Your task to perform on an android device: Add asus zenbook to the cart on newegg.com Image 0: 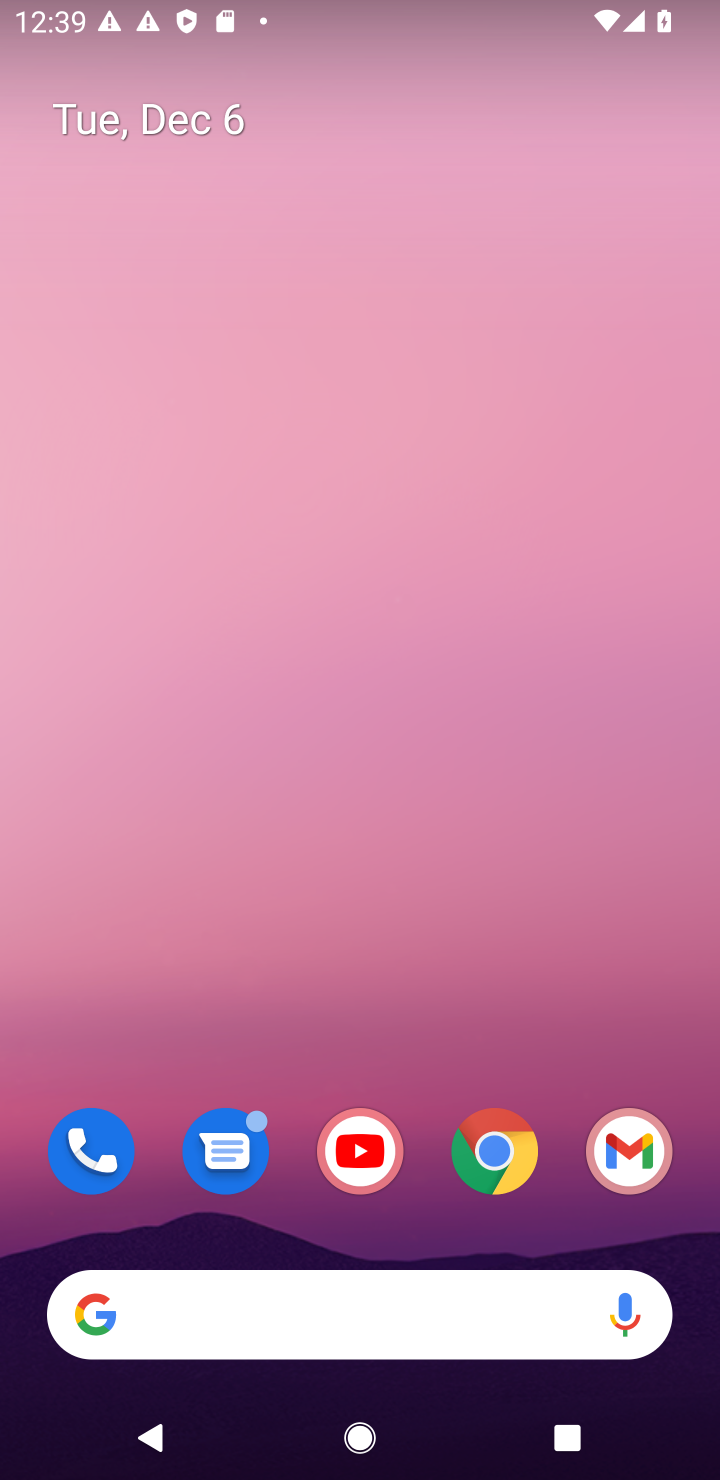
Step 0: click (511, 1165)
Your task to perform on an android device: Add asus zenbook to the cart on newegg.com Image 1: 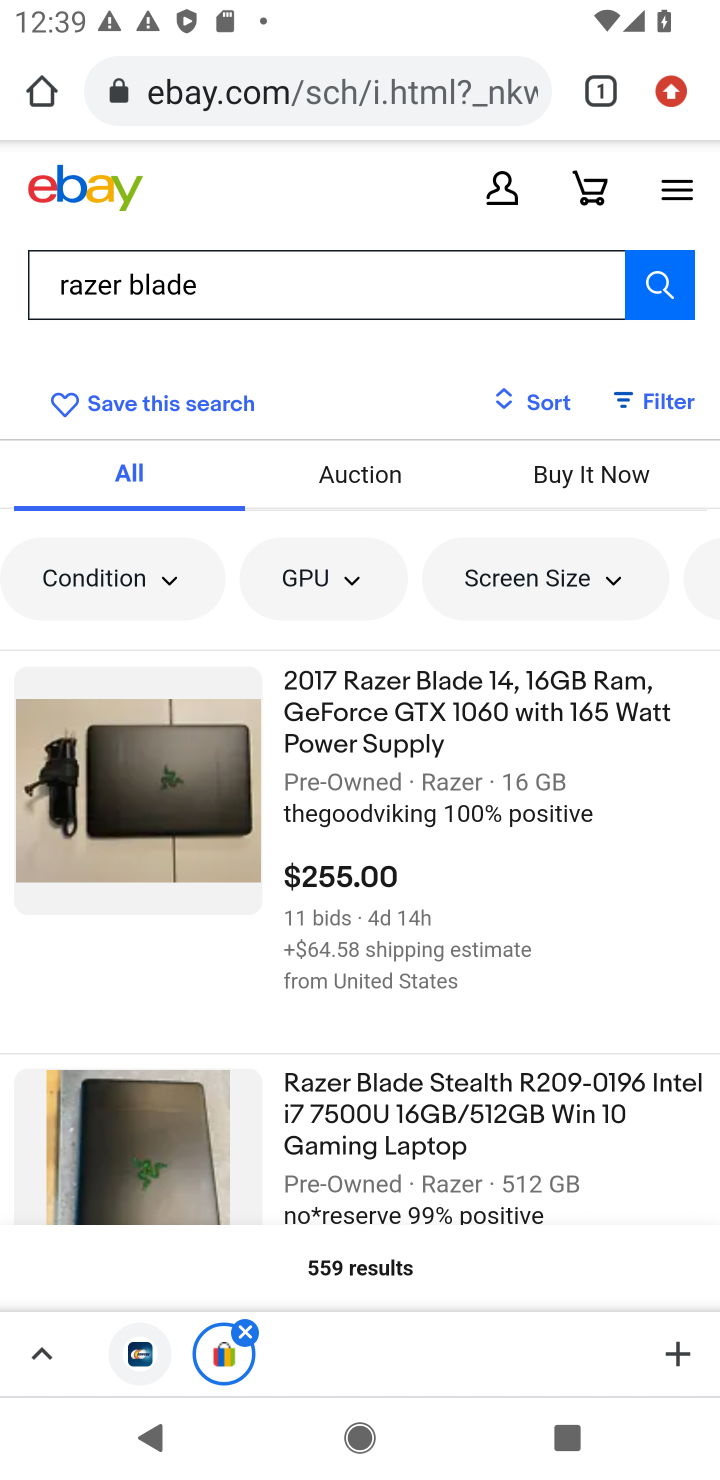
Step 1: click (293, 96)
Your task to perform on an android device: Add asus zenbook to the cart on newegg.com Image 2: 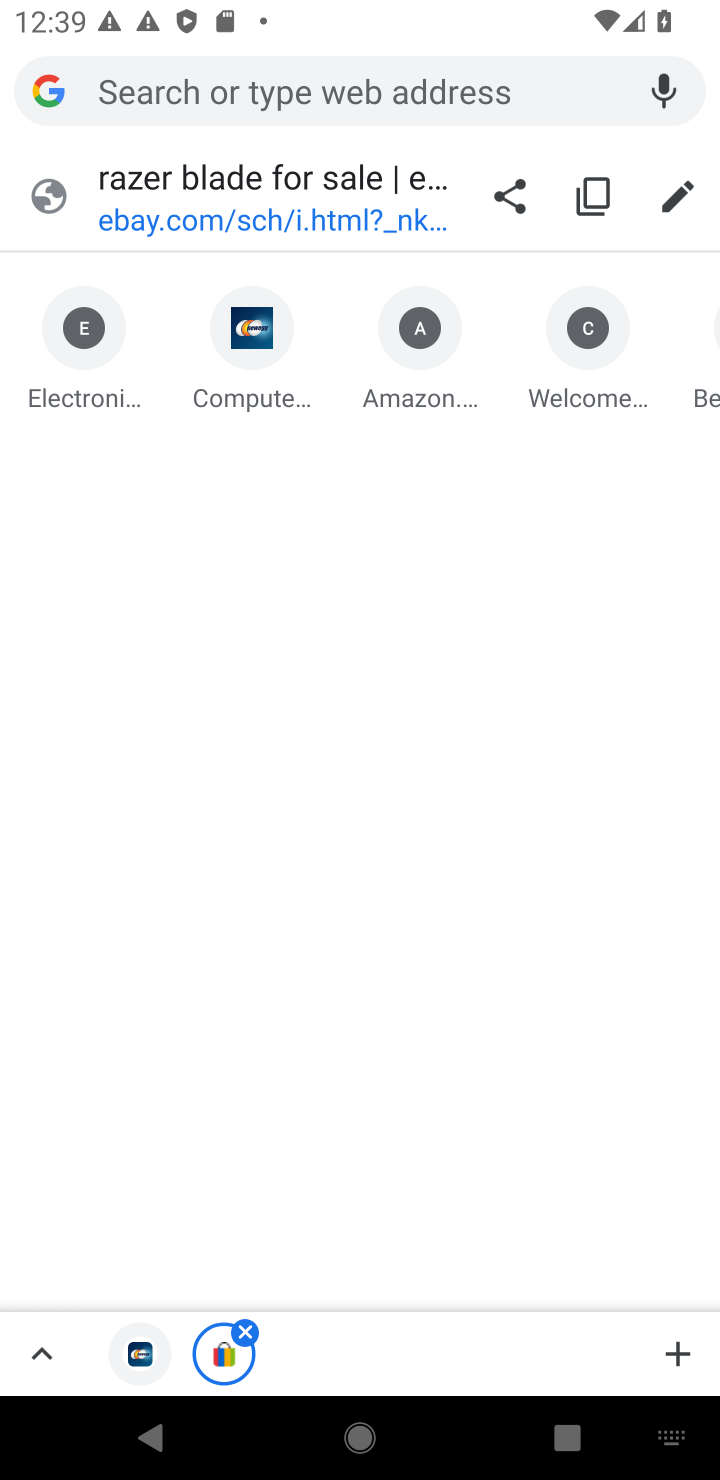
Step 2: click (244, 379)
Your task to perform on an android device: Add asus zenbook to the cart on newegg.com Image 3: 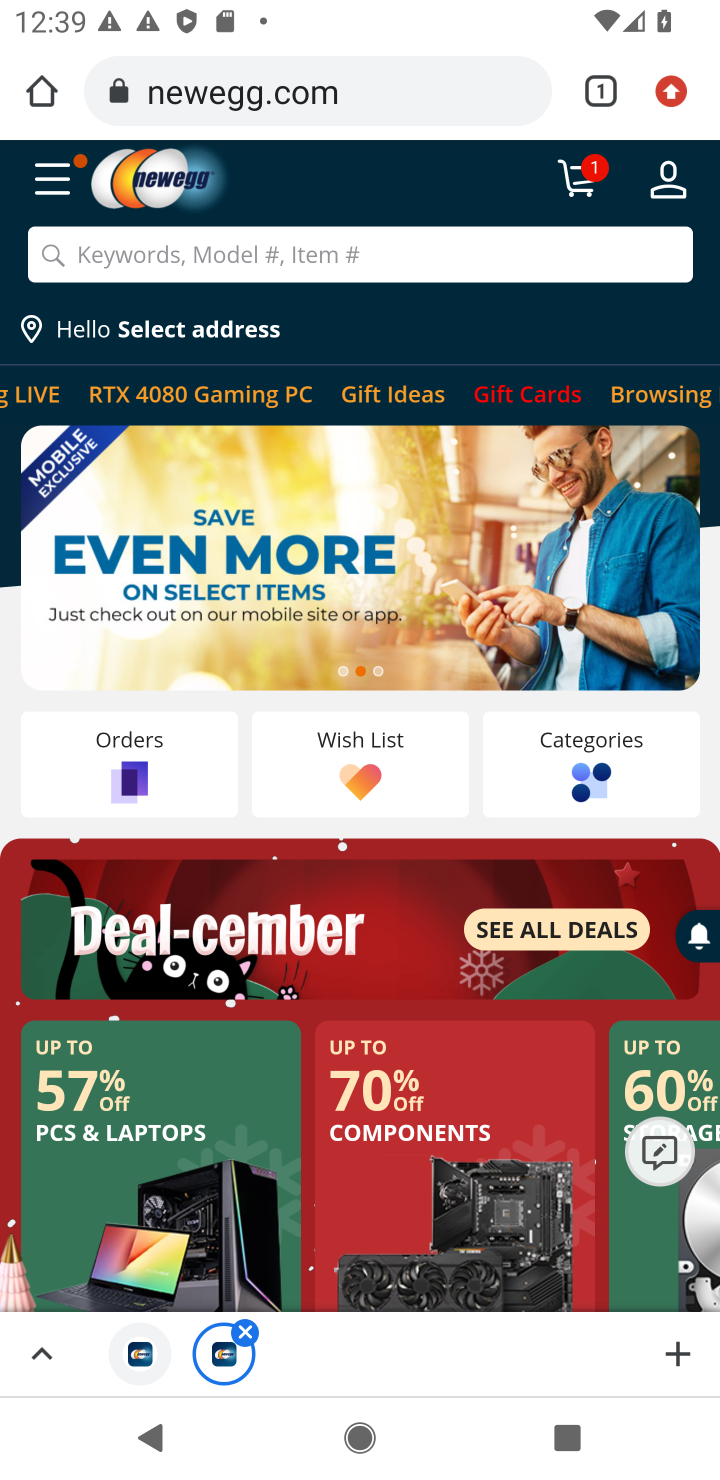
Step 3: click (155, 255)
Your task to perform on an android device: Add asus zenbook to the cart on newegg.com Image 4: 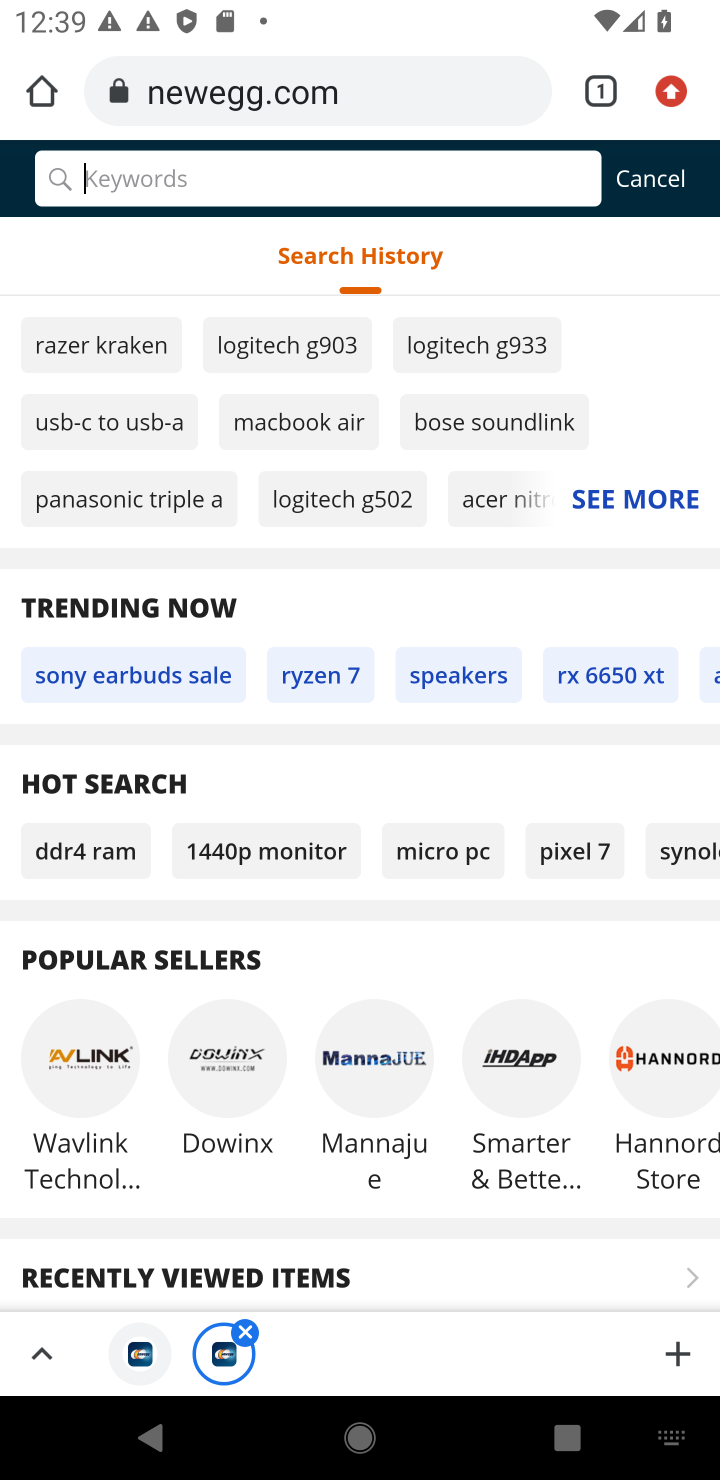
Step 4: type "asus zenbook"
Your task to perform on an android device: Add asus zenbook to the cart on newegg.com Image 5: 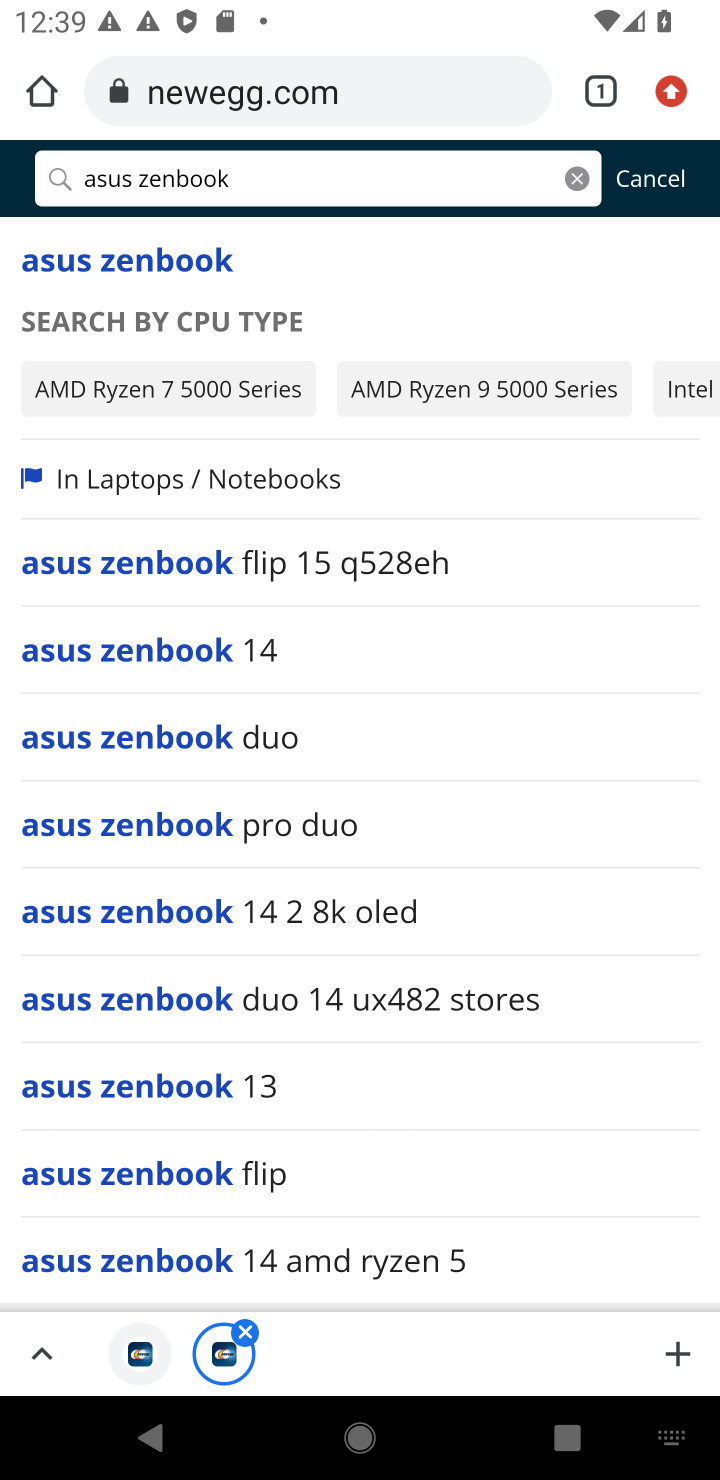
Step 5: click (122, 261)
Your task to perform on an android device: Add asus zenbook to the cart on newegg.com Image 6: 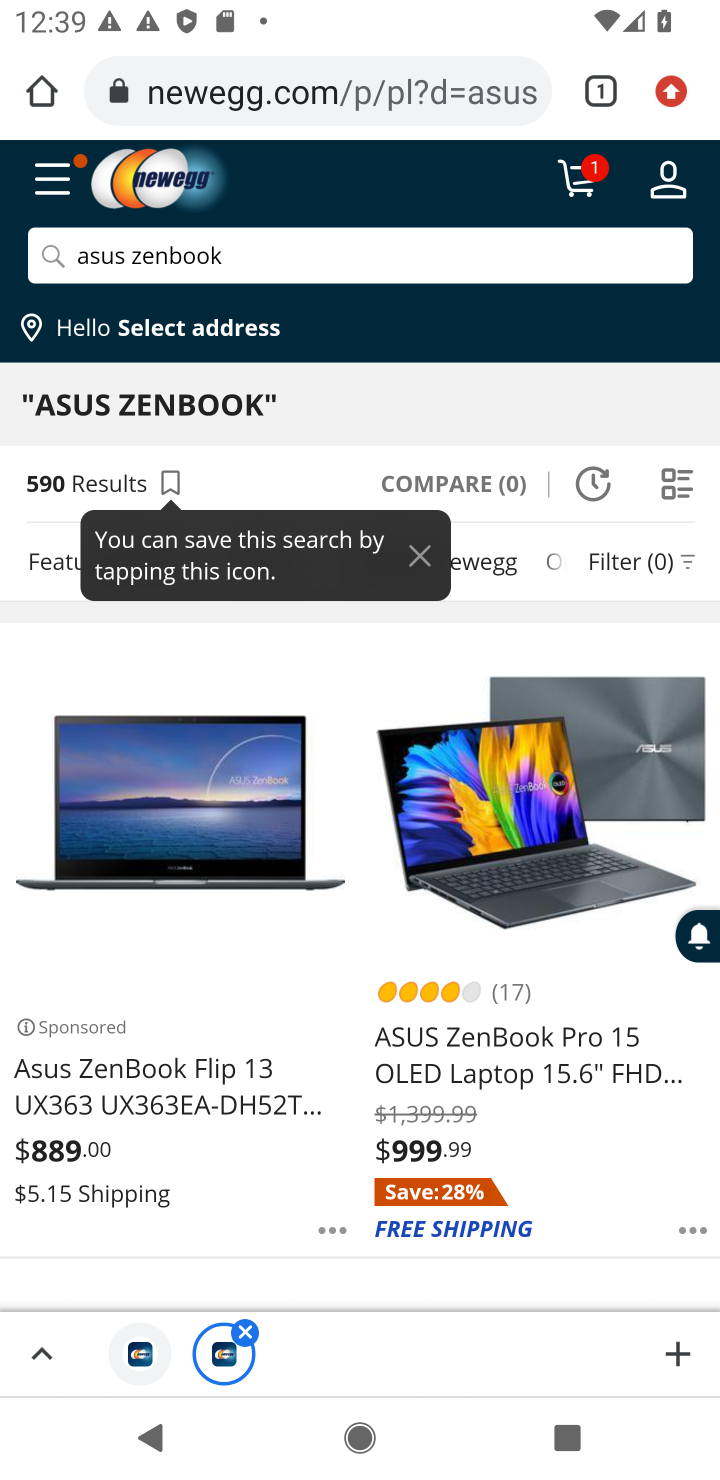
Step 6: click (153, 1101)
Your task to perform on an android device: Add asus zenbook to the cart on newegg.com Image 7: 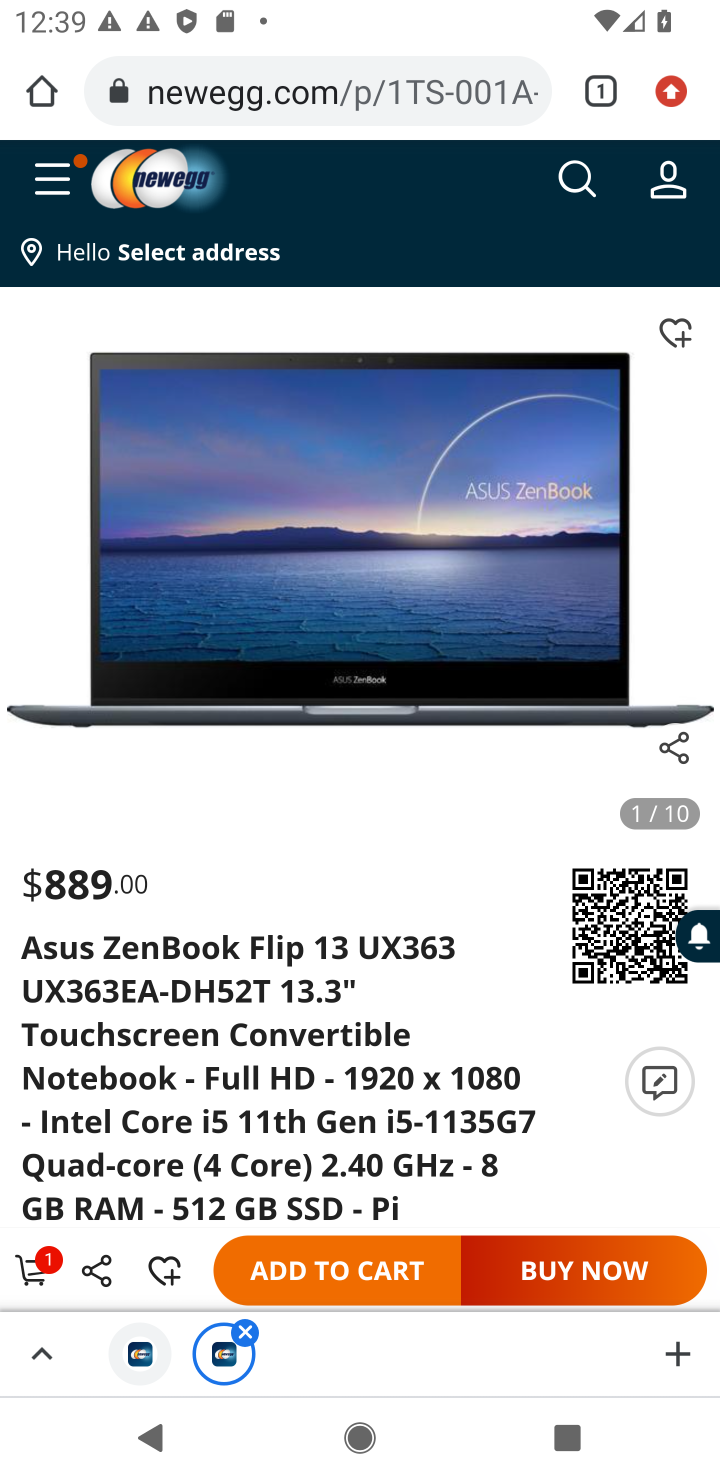
Step 7: click (317, 1274)
Your task to perform on an android device: Add asus zenbook to the cart on newegg.com Image 8: 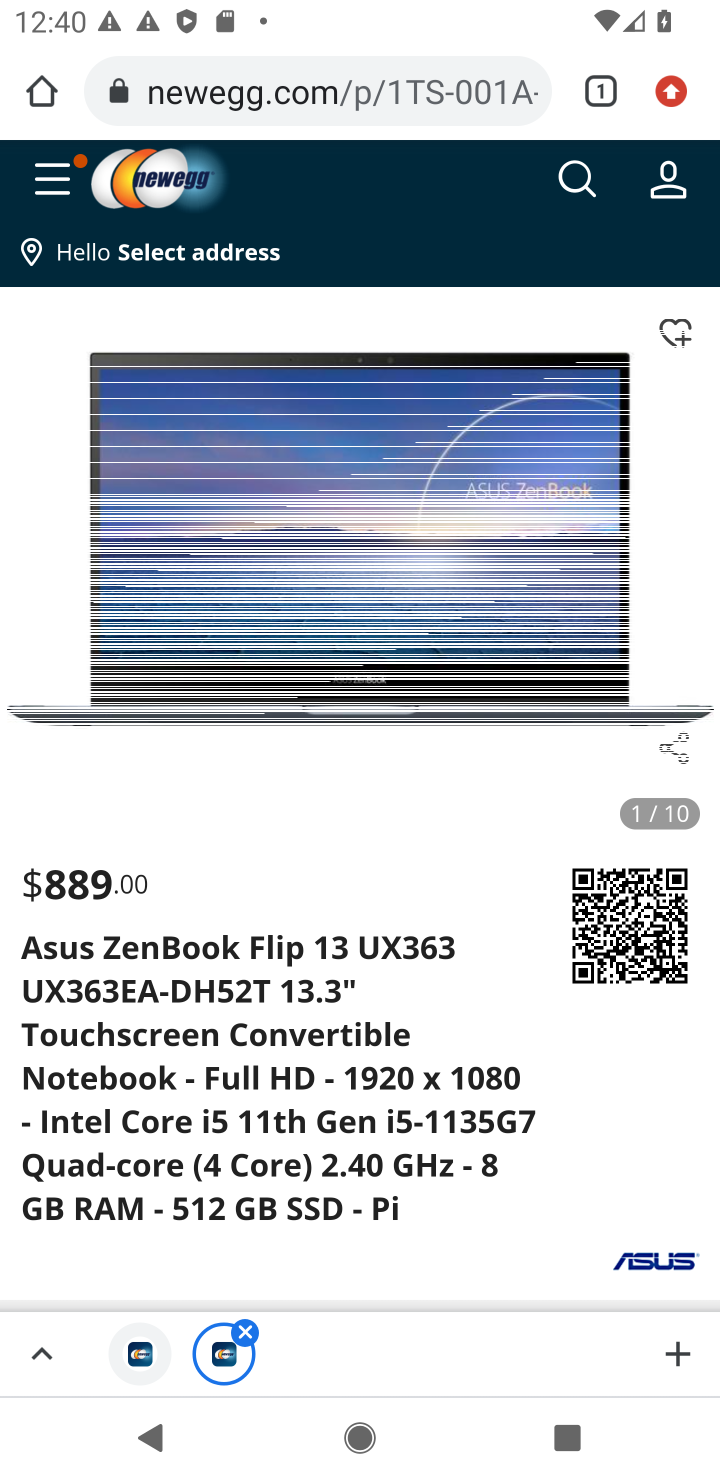
Step 8: task complete